Your task to perform on an android device: all mails in gmail Image 0: 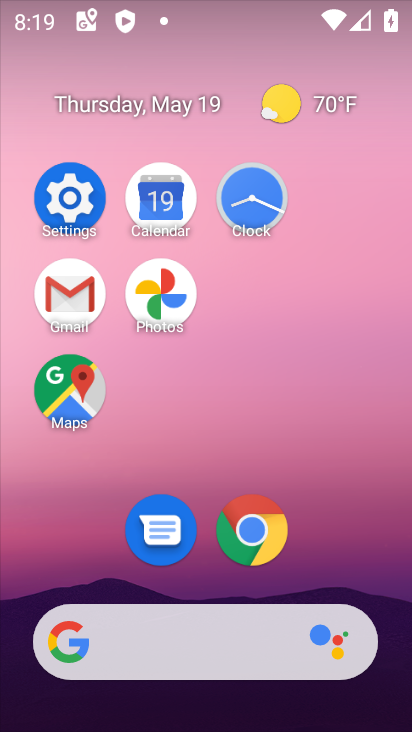
Step 0: click (80, 293)
Your task to perform on an android device: all mails in gmail Image 1: 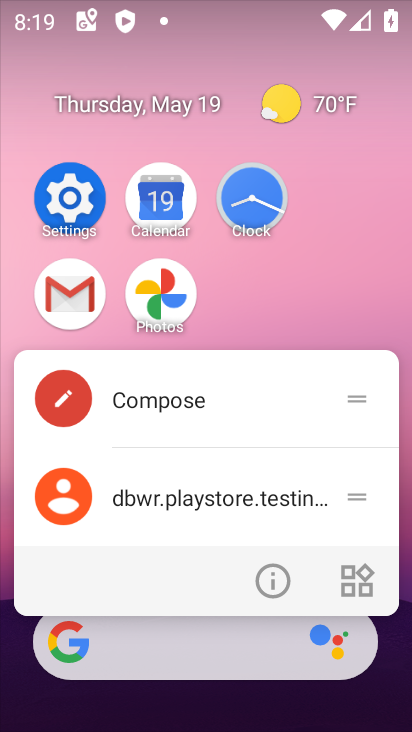
Step 1: click (67, 277)
Your task to perform on an android device: all mails in gmail Image 2: 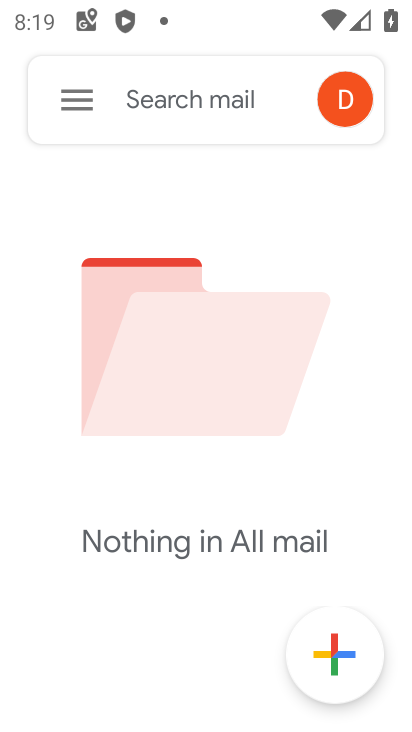
Step 2: click (40, 120)
Your task to perform on an android device: all mails in gmail Image 3: 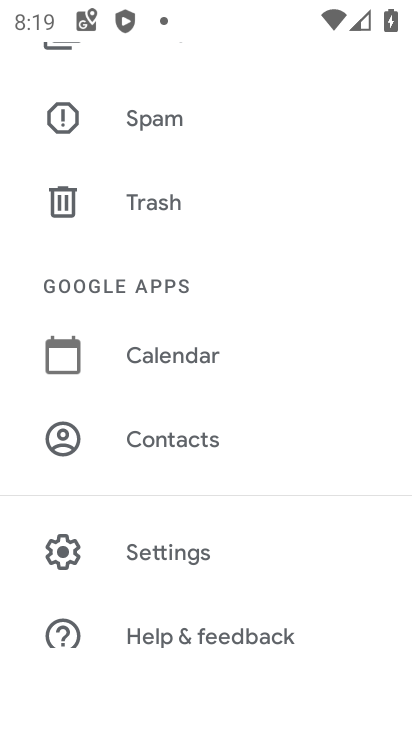
Step 3: drag from (229, 279) to (251, 709)
Your task to perform on an android device: all mails in gmail Image 4: 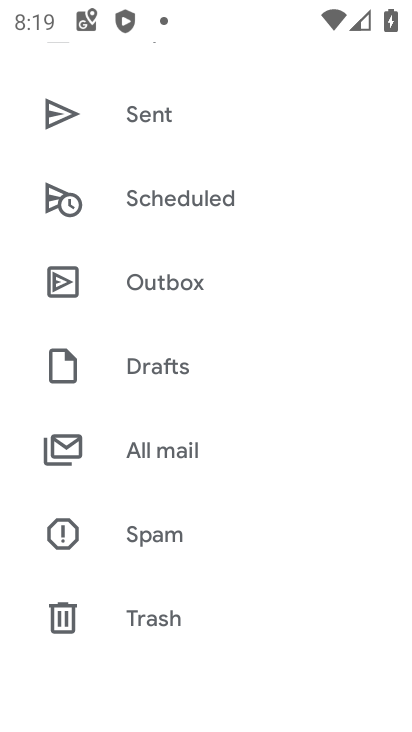
Step 4: click (204, 448)
Your task to perform on an android device: all mails in gmail Image 5: 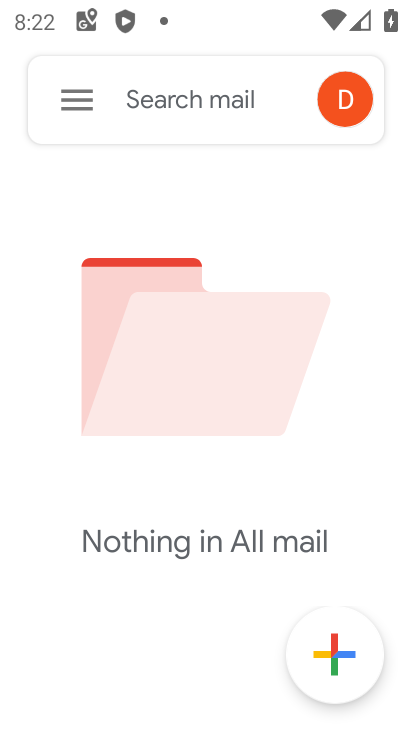
Step 5: task complete